Your task to perform on an android device: Open Google Chrome Image 0: 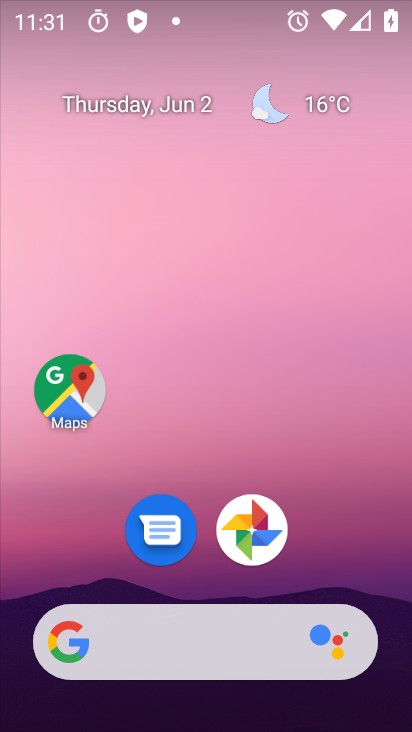
Step 0: drag from (310, 701) to (236, 35)
Your task to perform on an android device: Open Google Chrome Image 1: 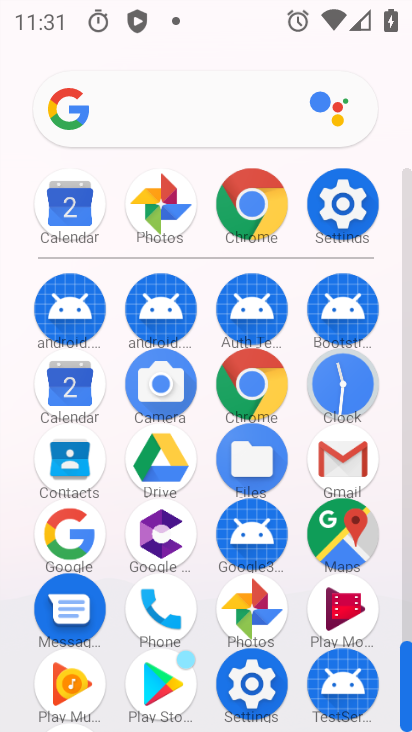
Step 1: click (244, 391)
Your task to perform on an android device: Open Google Chrome Image 2: 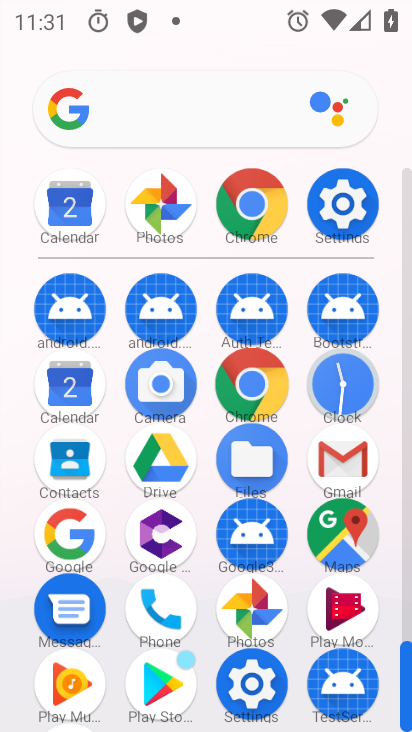
Step 2: click (247, 385)
Your task to perform on an android device: Open Google Chrome Image 3: 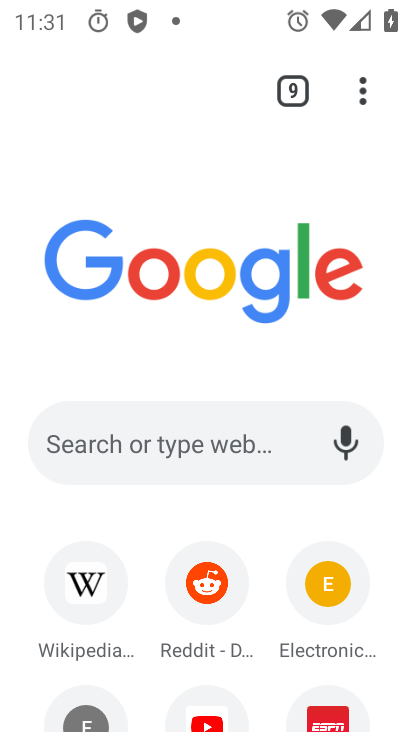
Step 3: click (367, 96)
Your task to perform on an android device: Open Google Chrome Image 4: 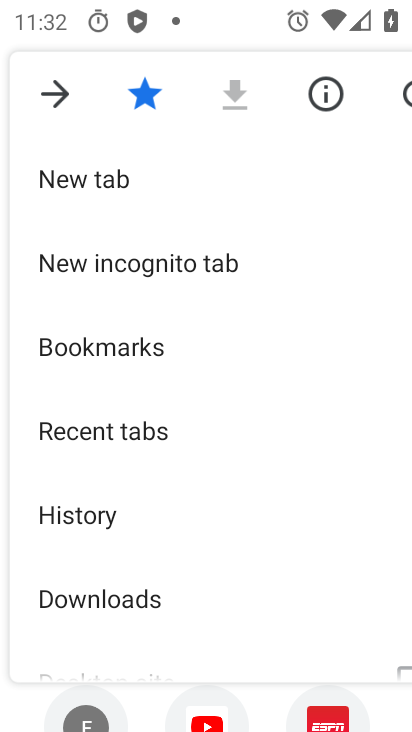
Step 4: click (59, 90)
Your task to perform on an android device: Open Google Chrome Image 5: 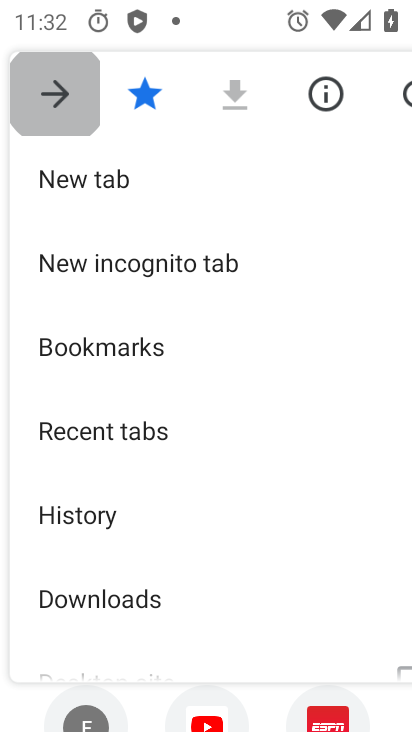
Step 5: click (60, 90)
Your task to perform on an android device: Open Google Chrome Image 6: 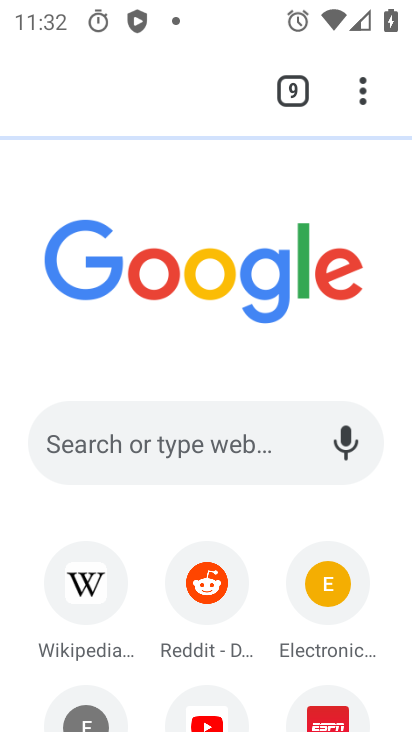
Step 6: click (61, 90)
Your task to perform on an android device: Open Google Chrome Image 7: 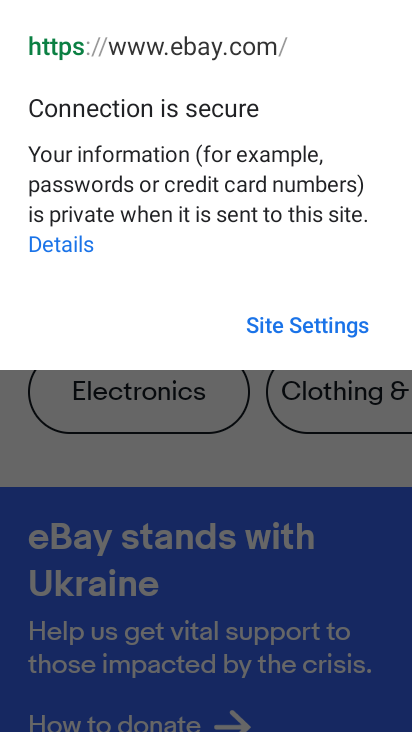
Step 7: press back button
Your task to perform on an android device: Open Google Chrome Image 8: 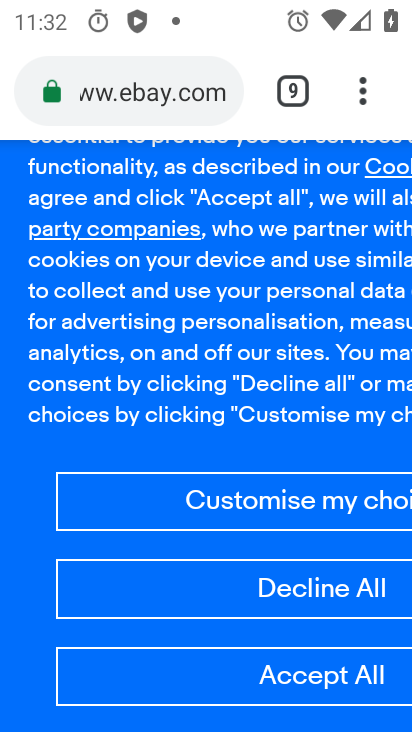
Step 8: press home button
Your task to perform on an android device: Open Google Chrome Image 9: 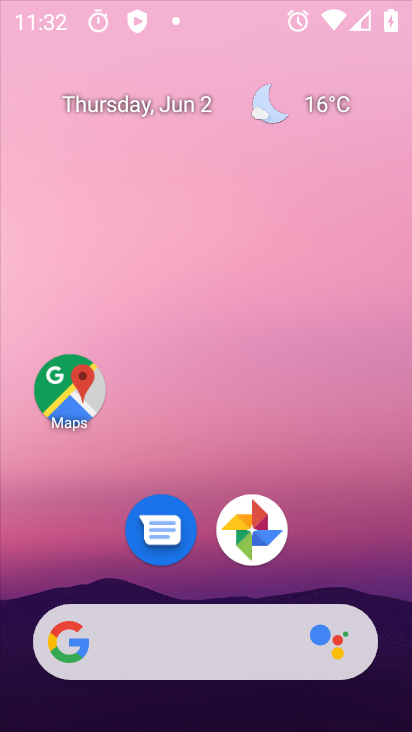
Step 9: press back button
Your task to perform on an android device: Open Google Chrome Image 10: 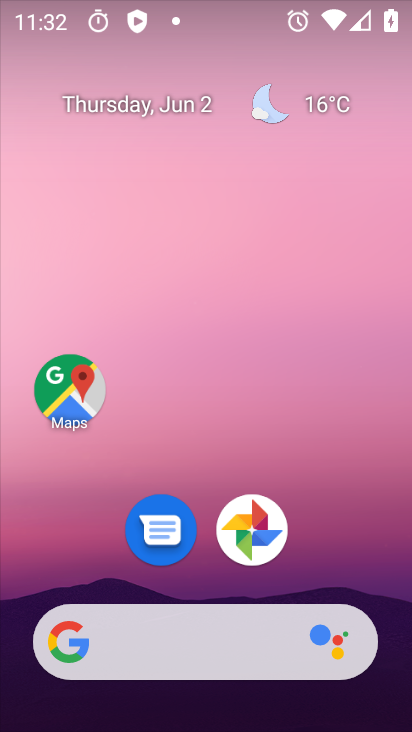
Step 10: drag from (171, 694) to (171, 189)
Your task to perform on an android device: Open Google Chrome Image 11: 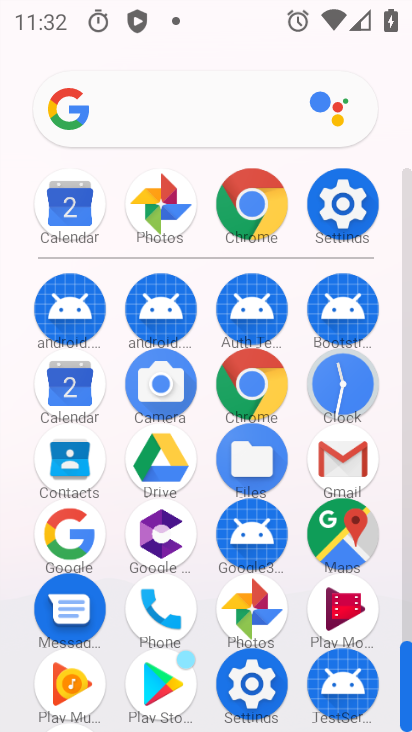
Step 11: click (61, 550)
Your task to perform on an android device: Open Google Chrome Image 12: 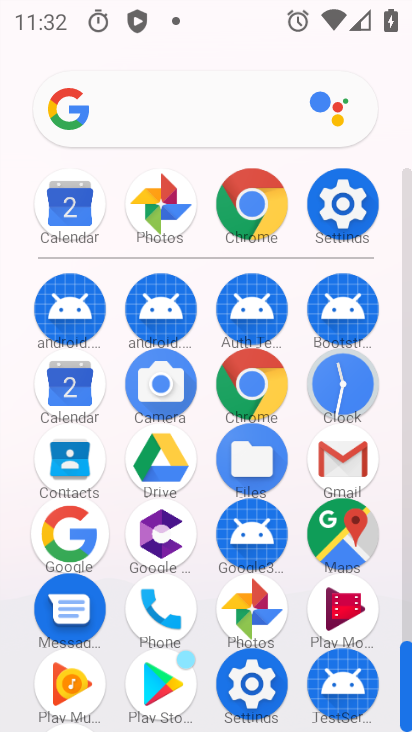
Step 12: click (61, 548)
Your task to perform on an android device: Open Google Chrome Image 13: 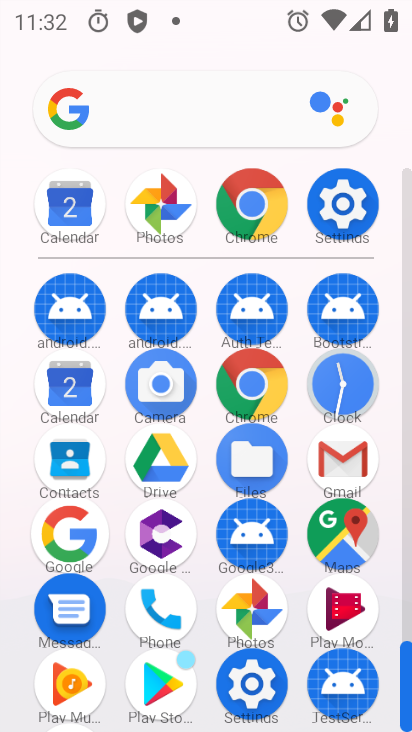
Step 13: click (61, 543)
Your task to perform on an android device: Open Google Chrome Image 14: 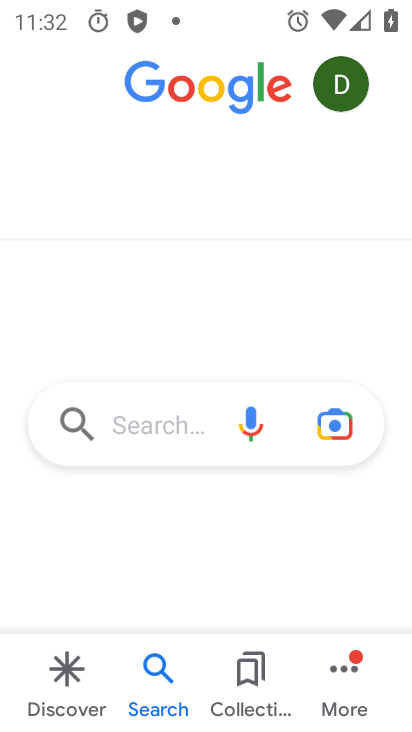
Step 14: task complete